Your task to perform on an android device: open the mobile data screen to see how much data has been used Image 0: 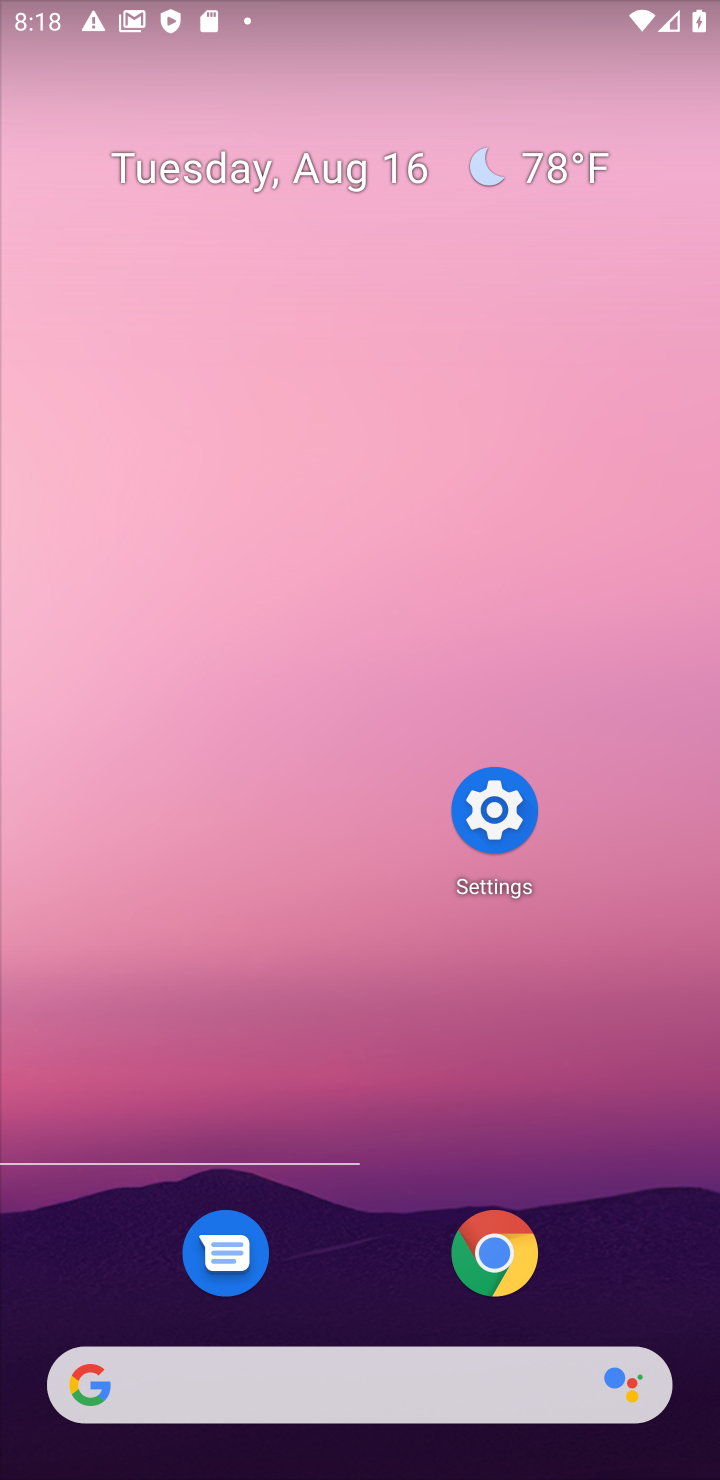
Step 0: click (502, 809)
Your task to perform on an android device: open the mobile data screen to see how much data has been used Image 1: 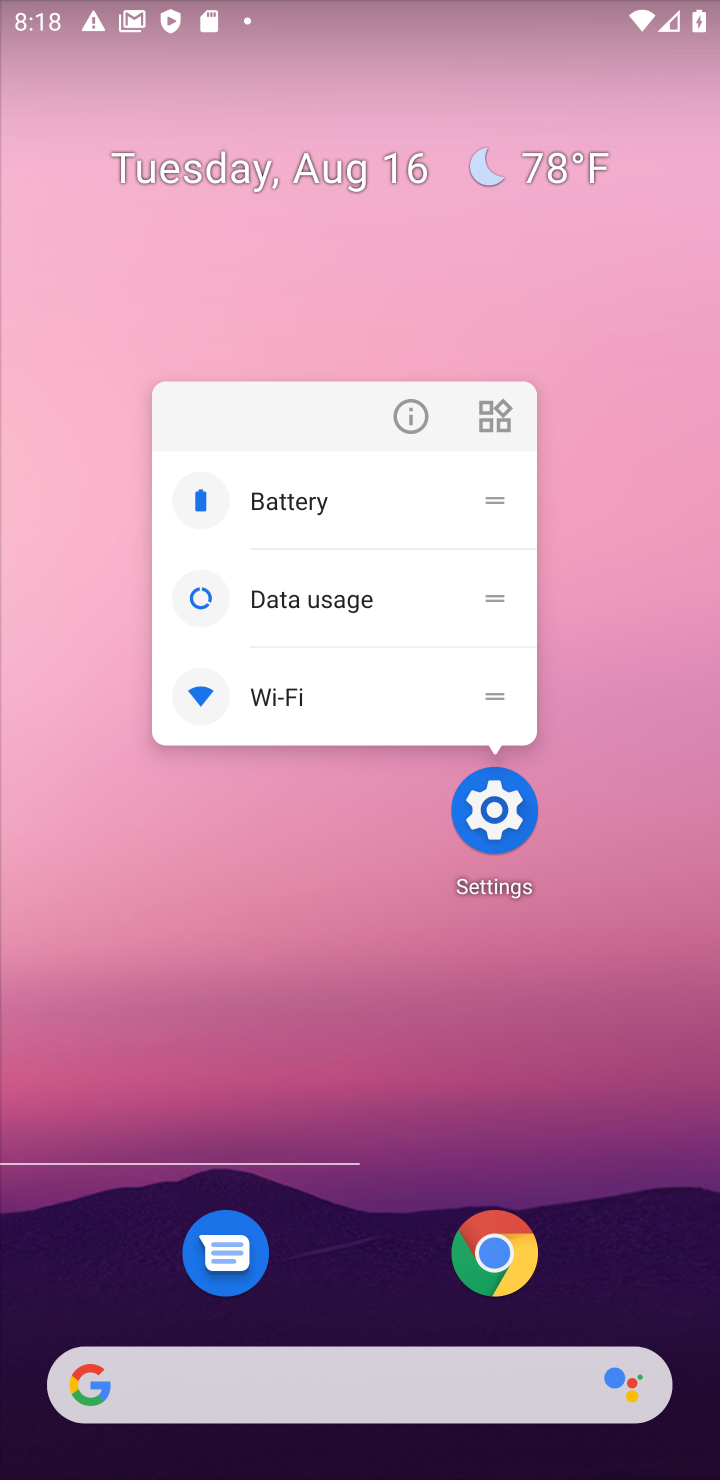
Step 1: click (502, 807)
Your task to perform on an android device: open the mobile data screen to see how much data has been used Image 2: 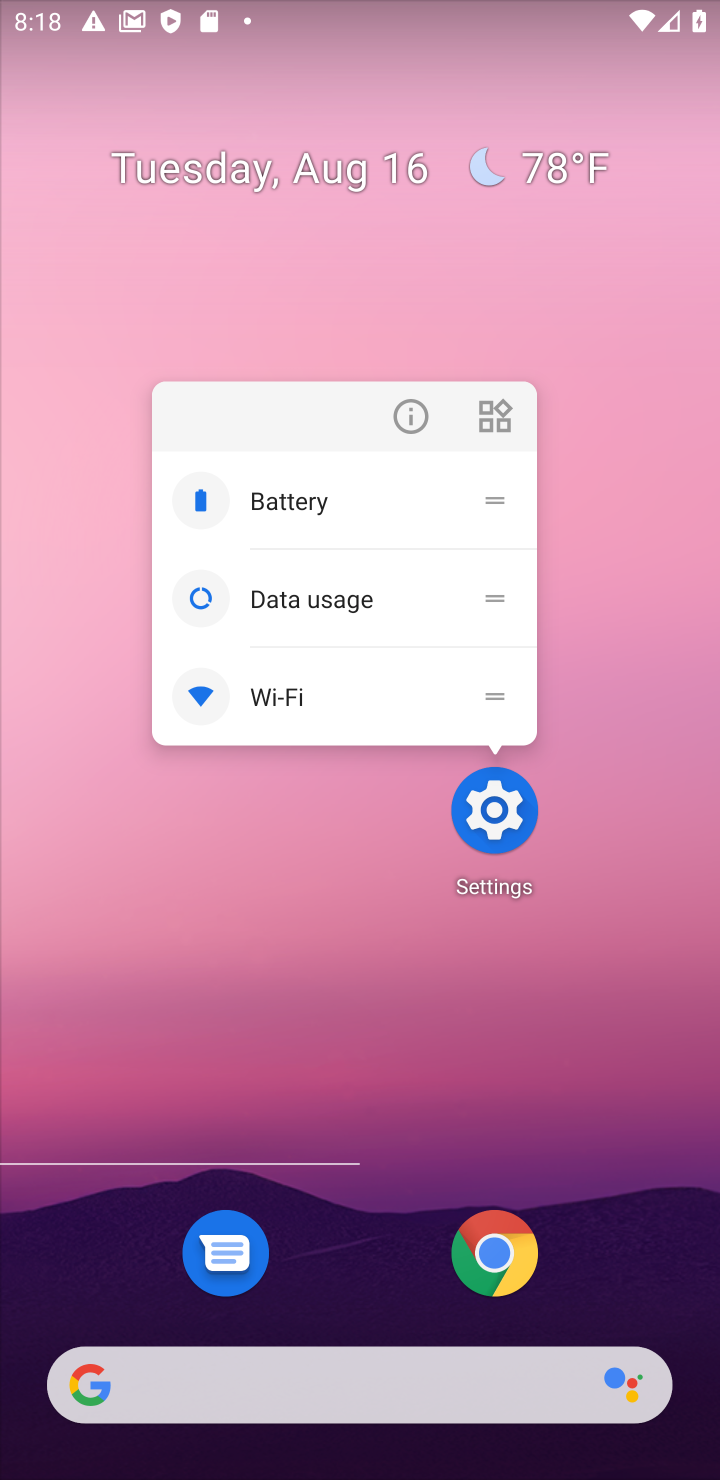
Step 2: click (502, 809)
Your task to perform on an android device: open the mobile data screen to see how much data has been used Image 3: 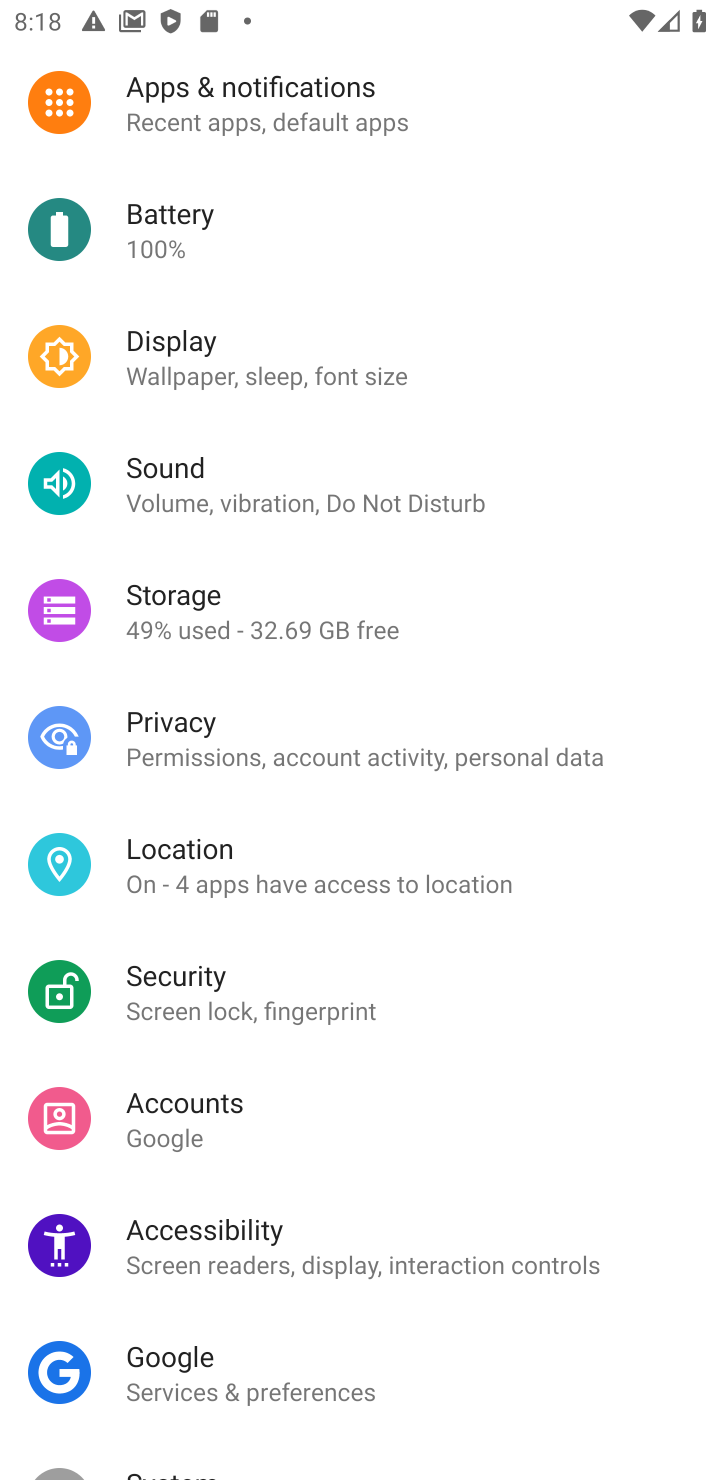
Step 3: drag from (463, 244) to (476, 867)
Your task to perform on an android device: open the mobile data screen to see how much data has been used Image 4: 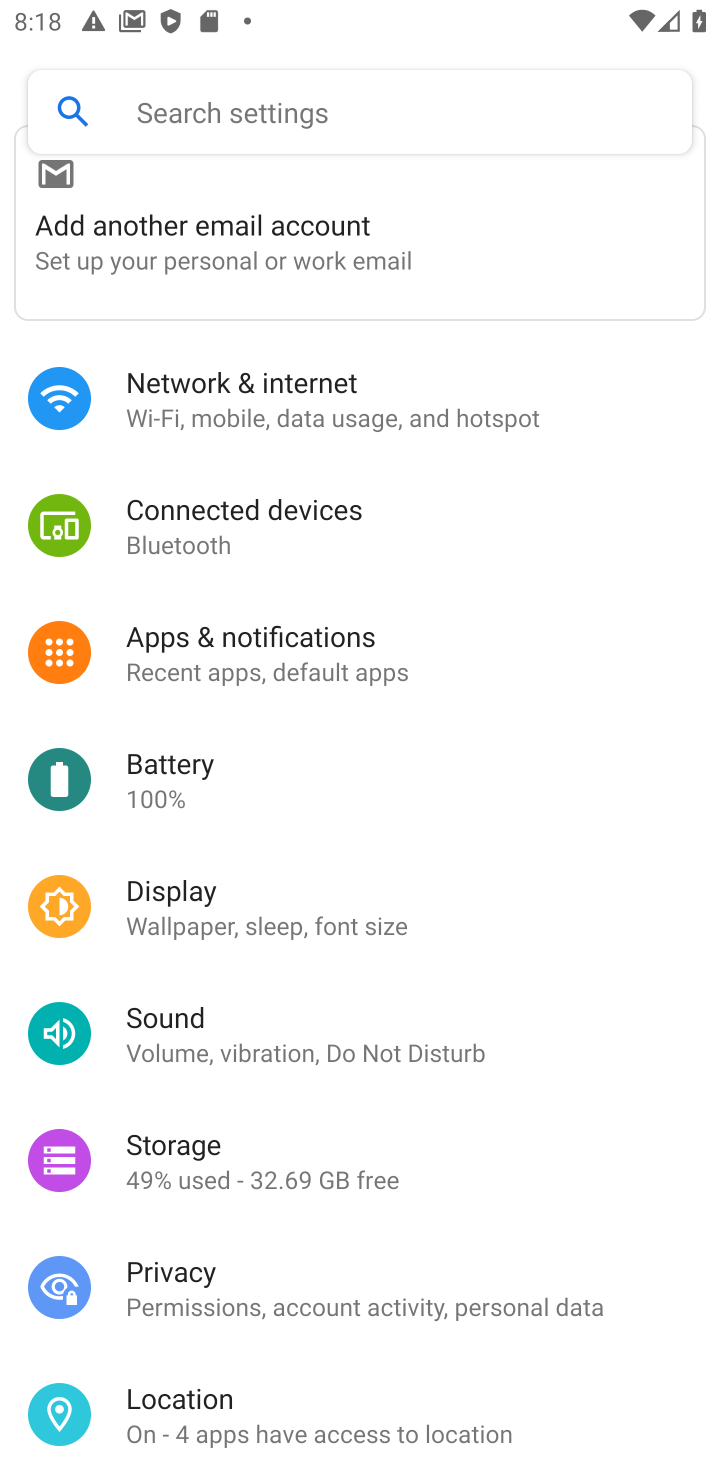
Step 4: click (308, 407)
Your task to perform on an android device: open the mobile data screen to see how much data has been used Image 5: 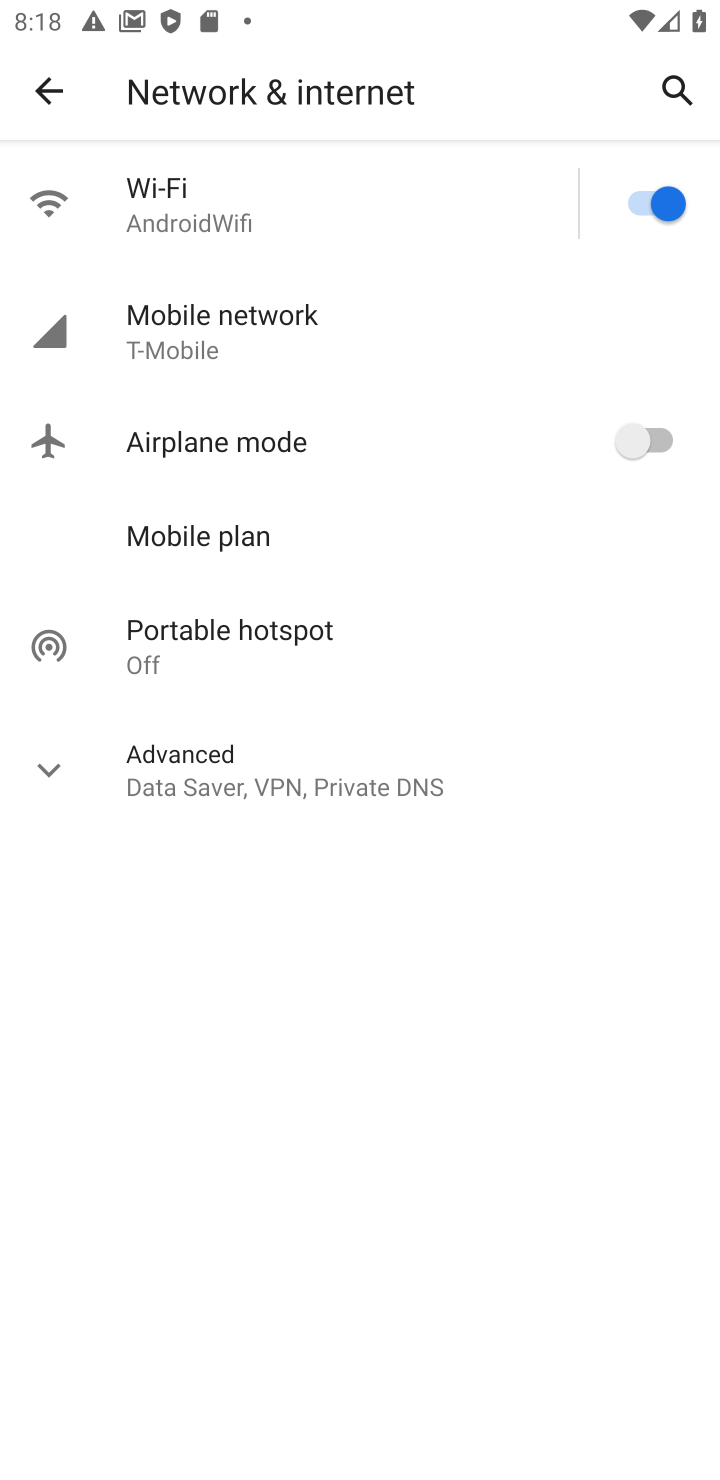
Step 5: click (228, 330)
Your task to perform on an android device: open the mobile data screen to see how much data has been used Image 6: 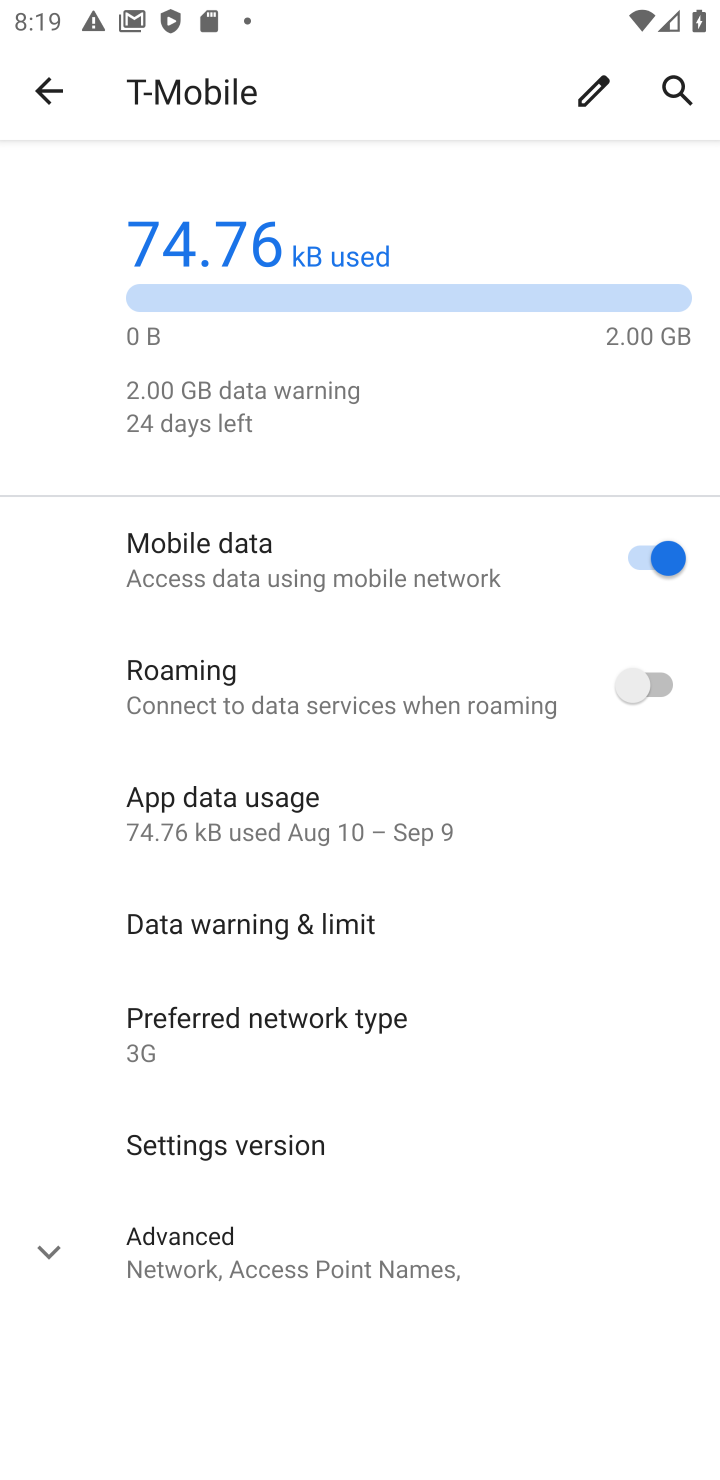
Step 6: task complete